Your task to perform on an android device: allow notifications from all sites in the chrome app Image 0: 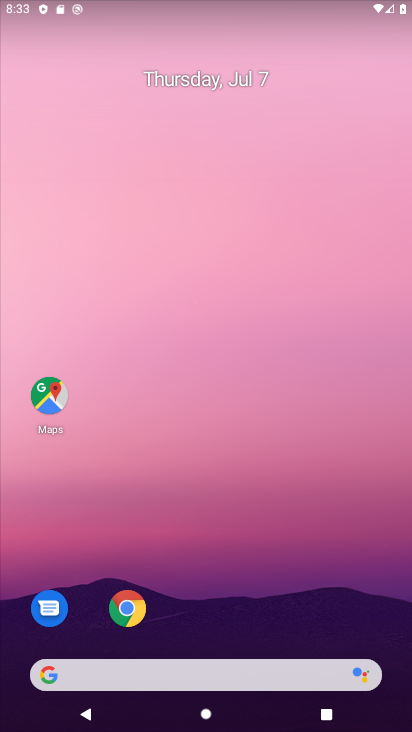
Step 0: drag from (160, 510) to (130, 368)
Your task to perform on an android device: allow notifications from all sites in the chrome app Image 1: 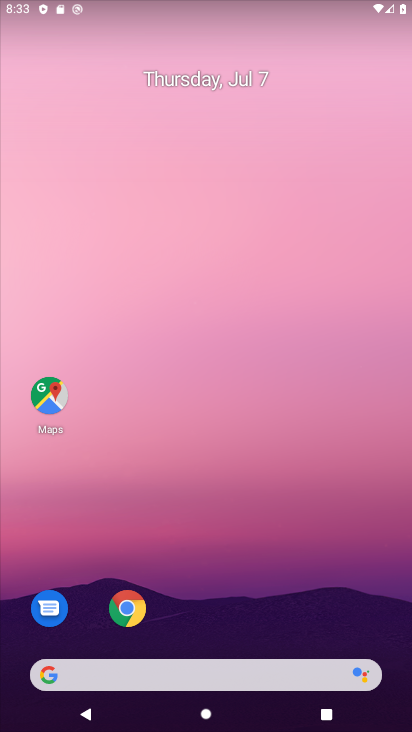
Step 1: drag from (258, 674) to (224, 308)
Your task to perform on an android device: allow notifications from all sites in the chrome app Image 2: 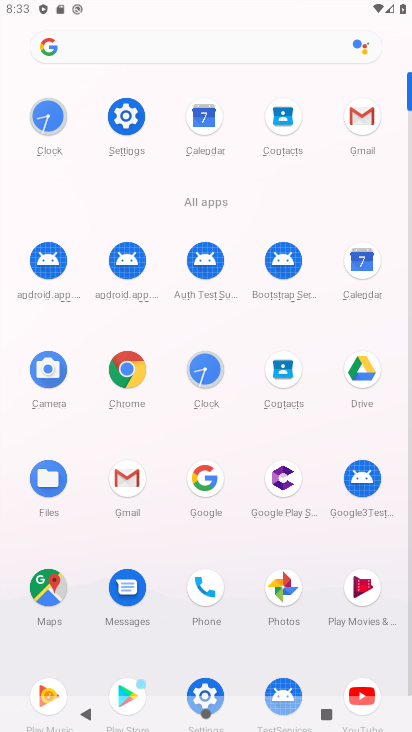
Step 2: click (133, 364)
Your task to perform on an android device: allow notifications from all sites in the chrome app Image 3: 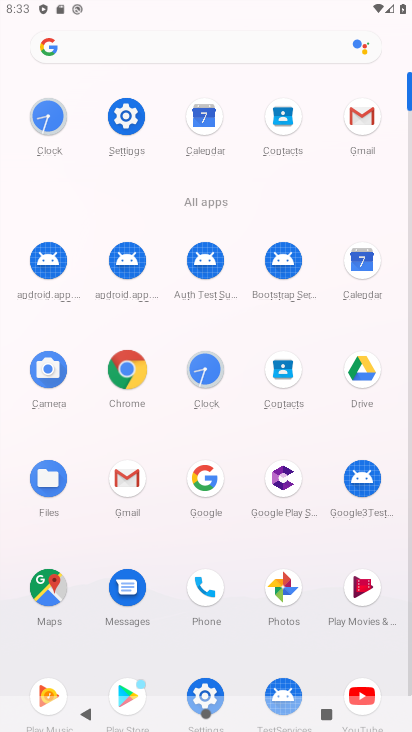
Step 3: click (132, 364)
Your task to perform on an android device: allow notifications from all sites in the chrome app Image 4: 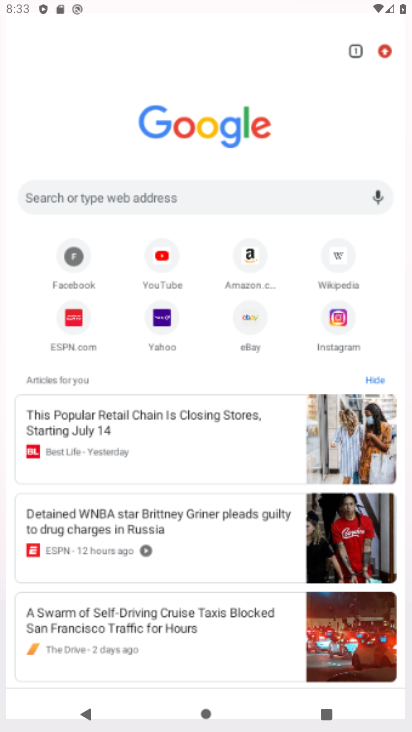
Step 4: click (132, 364)
Your task to perform on an android device: allow notifications from all sites in the chrome app Image 5: 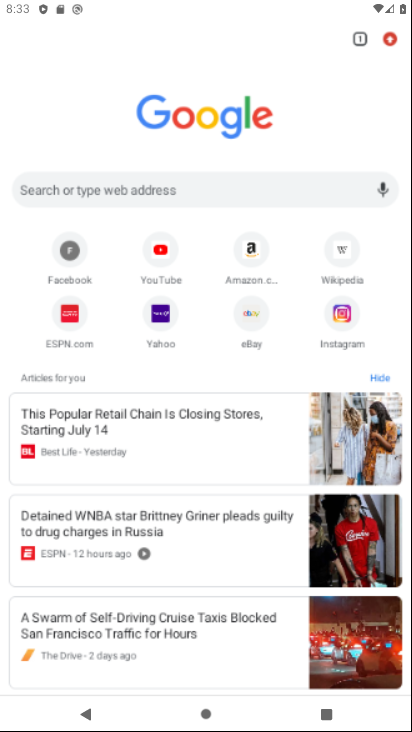
Step 5: click (132, 363)
Your task to perform on an android device: allow notifications from all sites in the chrome app Image 6: 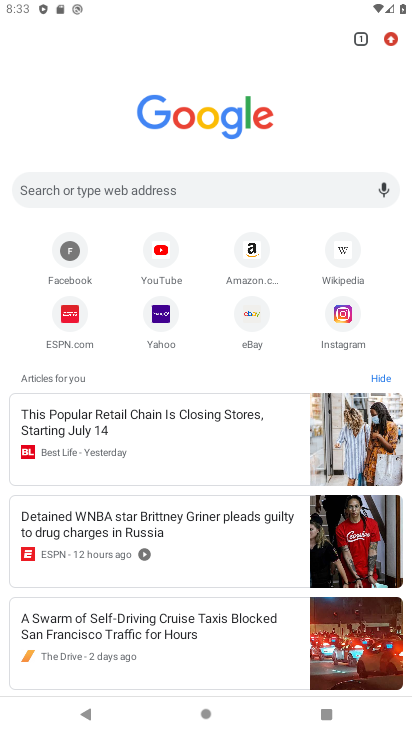
Step 6: click (52, 186)
Your task to perform on an android device: allow notifications from all sites in the chrome app Image 7: 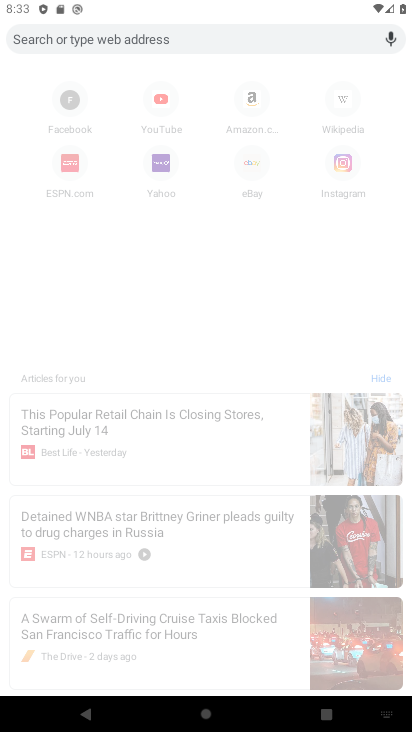
Step 7: press back button
Your task to perform on an android device: allow notifications from all sites in the chrome app Image 8: 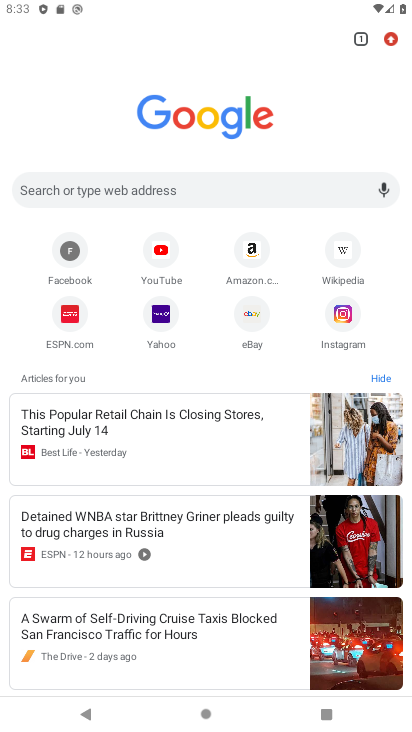
Step 8: drag from (389, 42) to (241, 371)
Your task to perform on an android device: allow notifications from all sites in the chrome app Image 9: 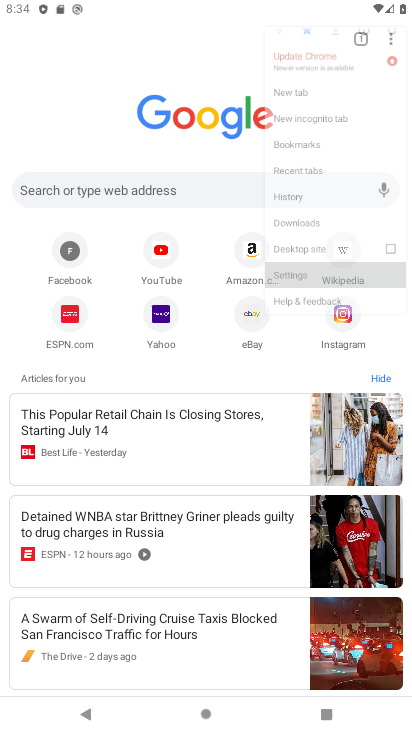
Step 9: click (241, 371)
Your task to perform on an android device: allow notifications from all sites in the chrome app Image 10: 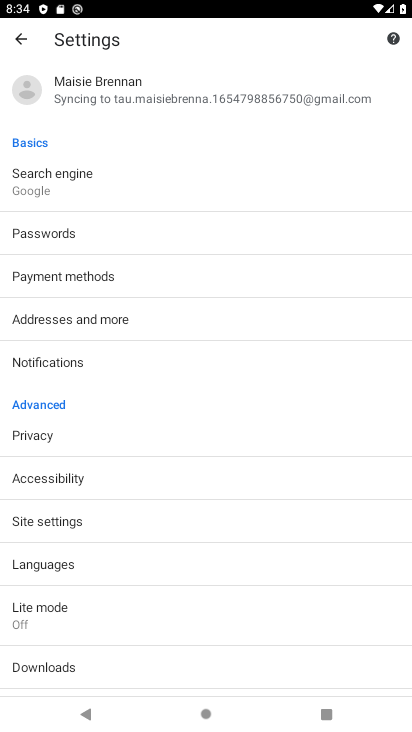
Step 10: drag from (118, 612) to (163, 231)
Your task to perform on an android device: allow notifications from all sites in the chrome app Image 11: 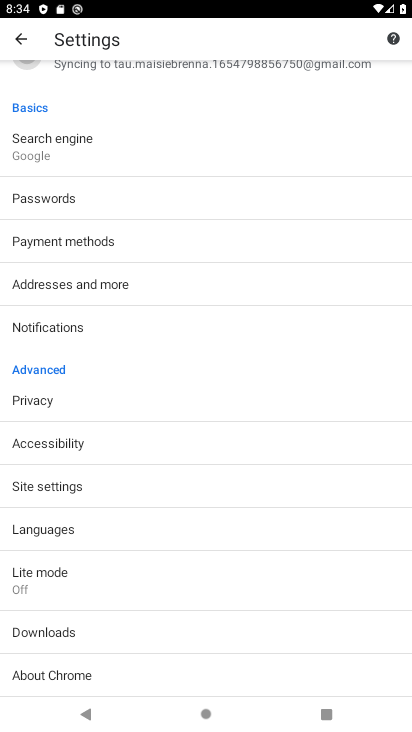
Step 11: click (53, 327)
Your task to perform on an android device: allow notifications from all sites in the chrome app Image 12: 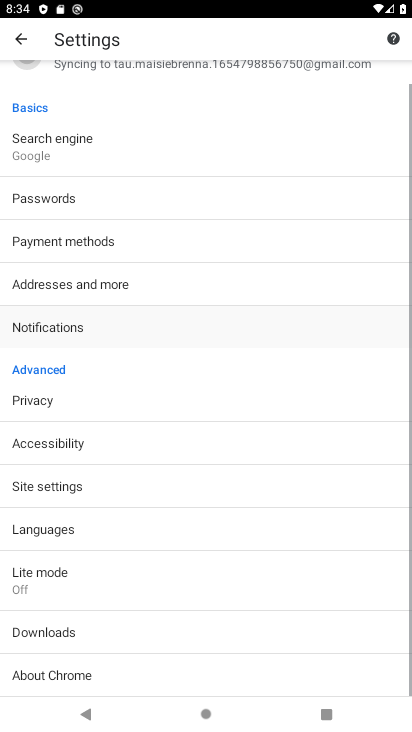
Step 12: click (38, 317)
Your task to perform on an android device: allow notifications from all sites in the chrome app Image 13: 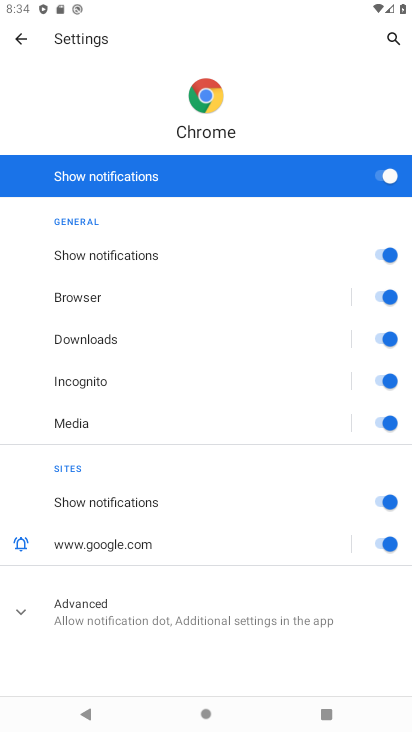
Step 13: task complete